Your task to perform on an android device: check data usage Image 0: 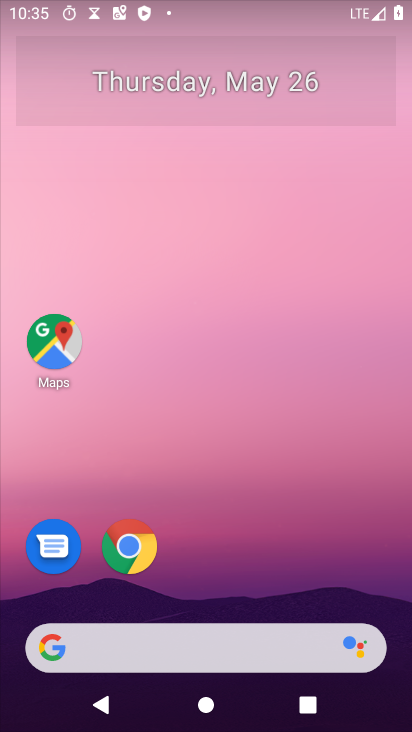
Step 0: drag from (372, 581) to (360, 110)
Your task to perform on an android device: check data usage Image 1: 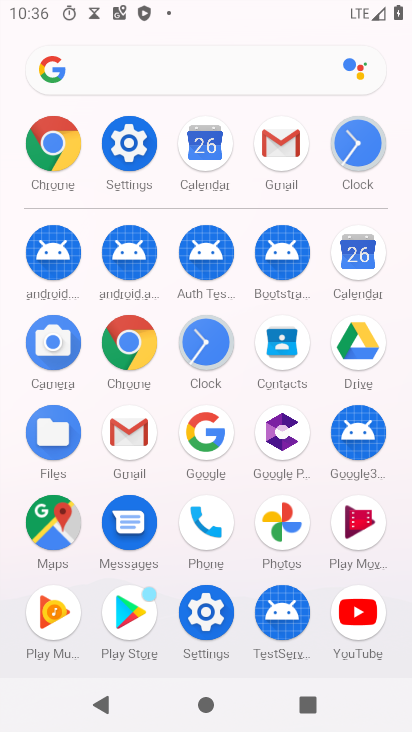
Step 1: click (207, 624)
Your task to perform on an android device: check data usage Image 2: 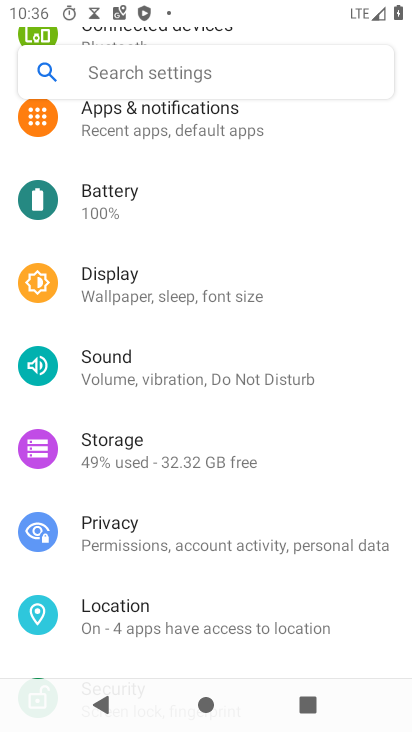
Step 2: drag from (251, 475) to (272, 224)
Your task to perform on an android device: check data usage Image 3: 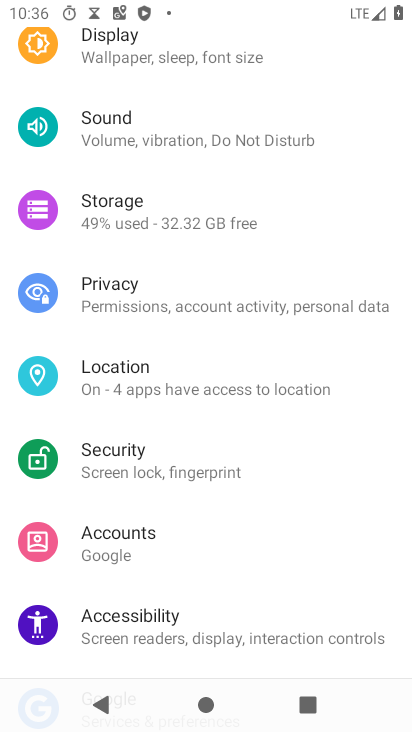
Step 3: drag from (228, 554) to (270, 254)
Your task to perform on an android device: check data usage Image 4: 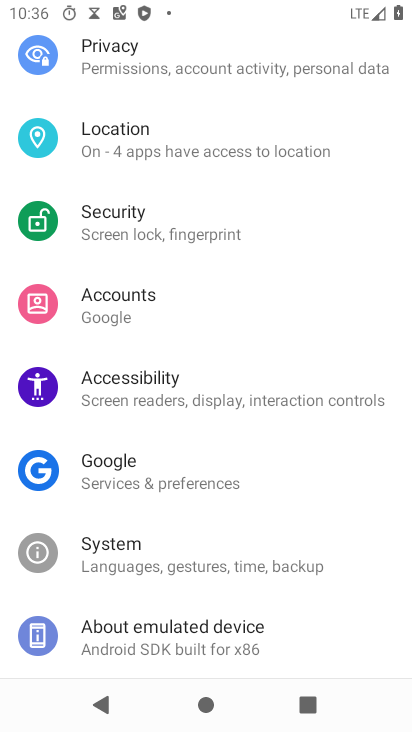
Step 4: drag from (222, 166) to (228, 525)
Your task to perform on an android device: check data usage Image 5: 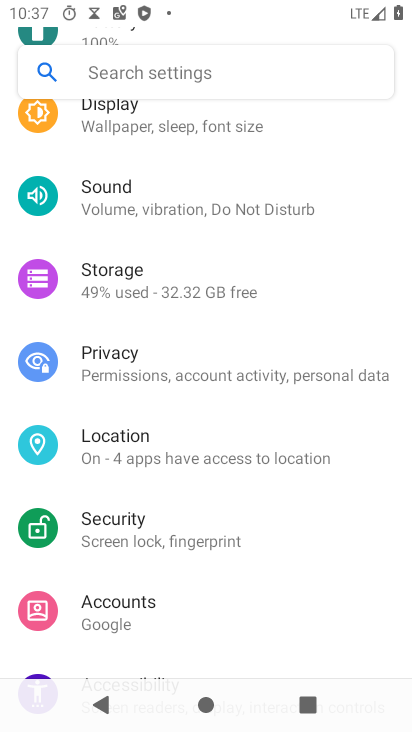
Step 5: drag from (178, 229) to (239, 616)
Your task to perform on an android device: check data usage Image 6: 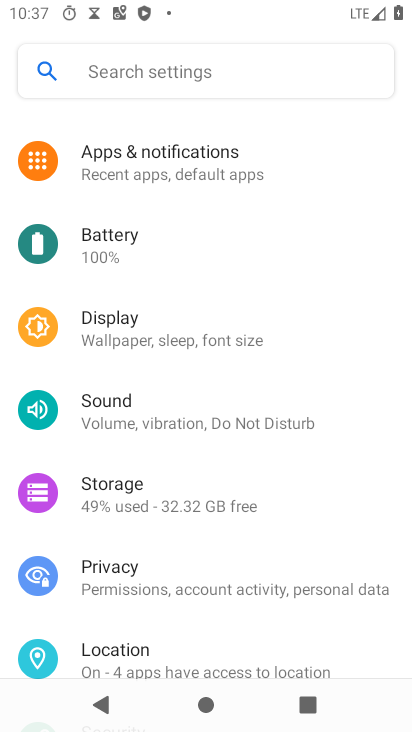
Step 6: drag from (255, 211) to (270, 553)
Your task to perform on an android device: check data usage Image 7: 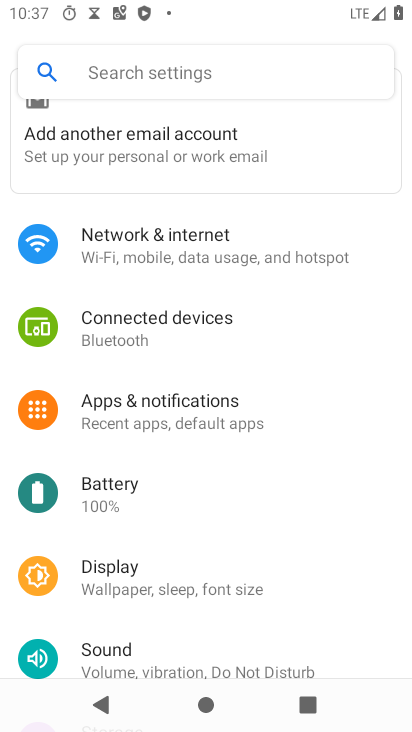
Step 7: click (178, 250)
Your task to perform on an android device: check data usage Image 8: 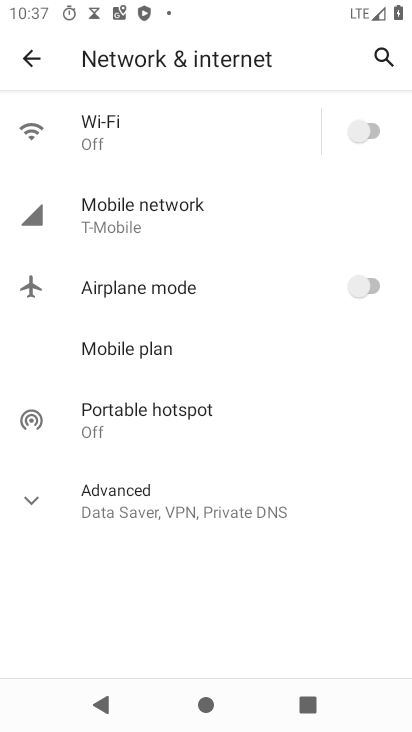
Step 8: click (128, 221)
Your task to perform on an android device: check data usage Image 9: 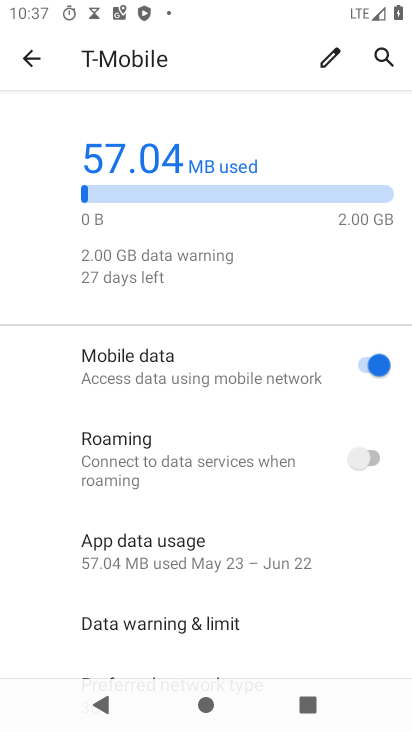
Step 9: task complete